Your task to perform on an android device: toggle location history Image 0: 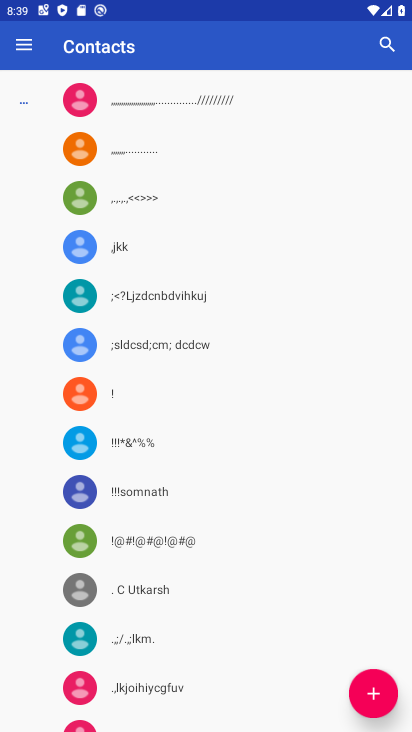
Step 0: press home button
Your task to perform on an android device: toggle location history Image 1: 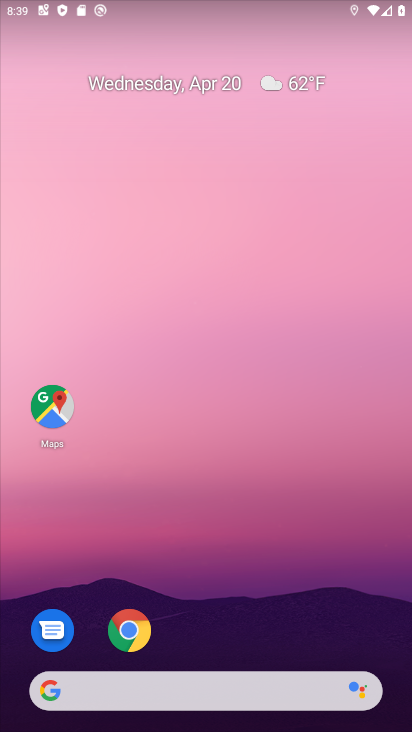
Step 1: drag from (186, 621) to (291, 0)
Your task to perform on an android device: toggle location history Image 2: 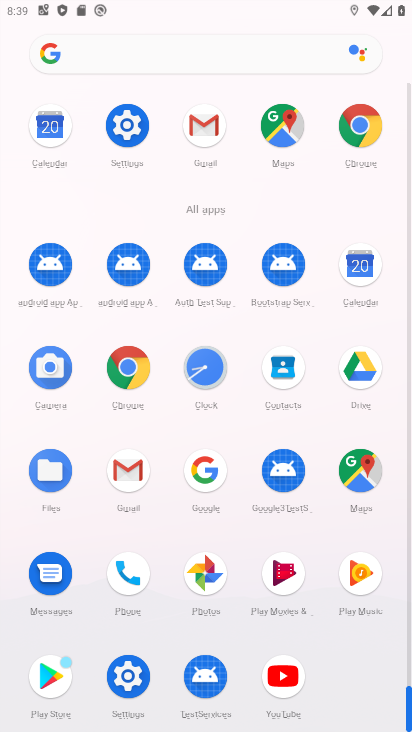
Step 2: click (123, 136)
Your task to perform on an android device: toggle location history Image 3: 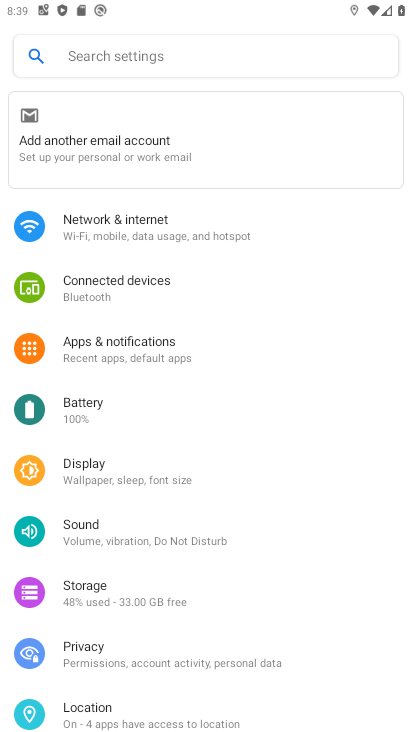
Step 3: click (87, 709)
Your task to perform on an android device: toggle location history Image 4: 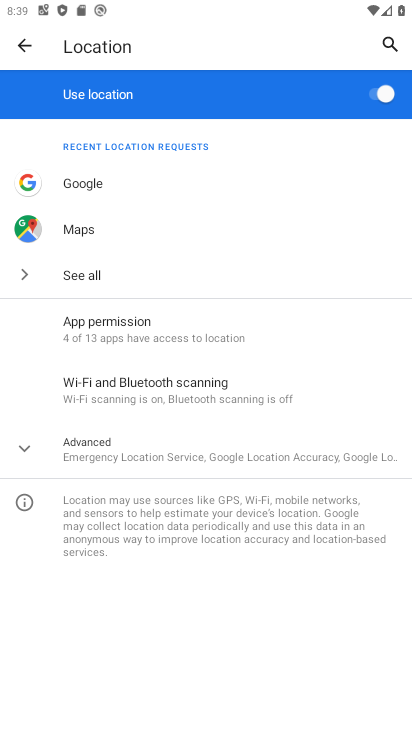
Step 4: click (133, 445)
Your task to perform on an android device: toggle location history Image 5: 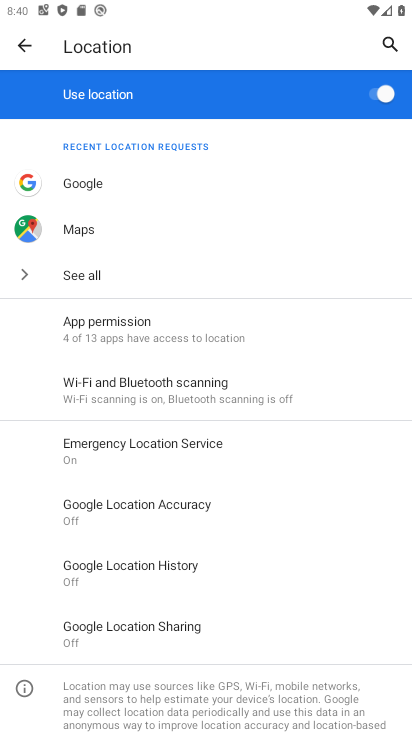
Step 5: click (133, 574)
Your task to perform on an android device: toggle location history Image 6: 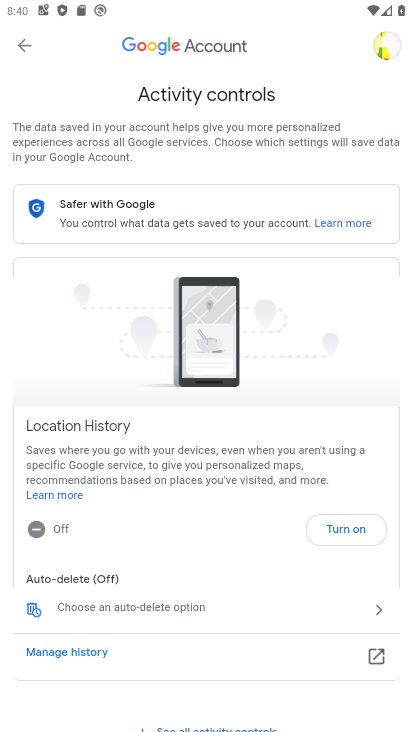
Step 6: click (341, 520)
Your task to perform on an android device: toggle location history Image 7: 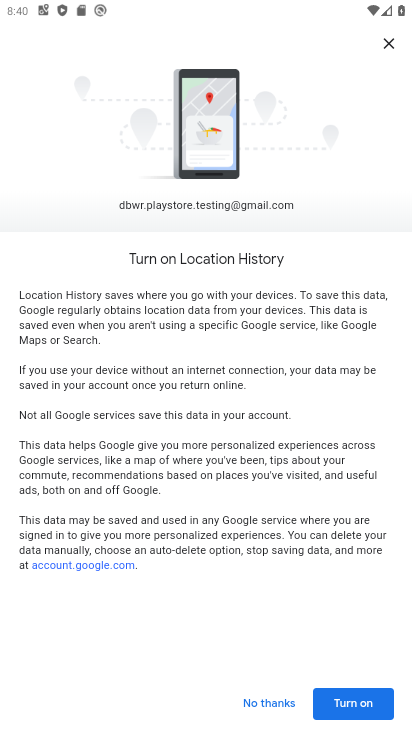
Step 7: click (362, 709)
Your task to perform on an android device: toggle location history Image 8: 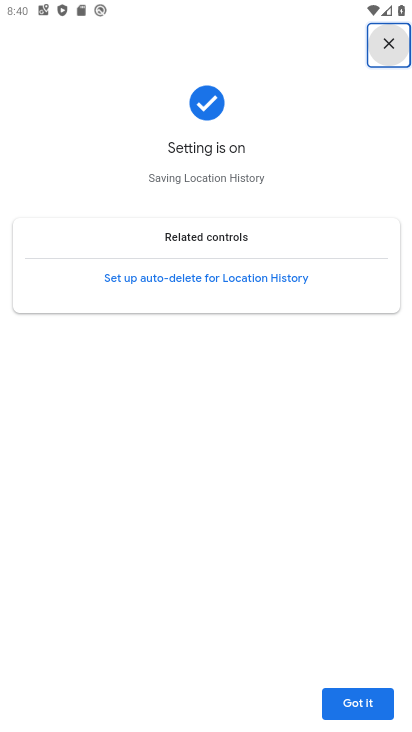
Step 8: click (361, 702)
Your task to perform on an android device: toggle location history Image 9: 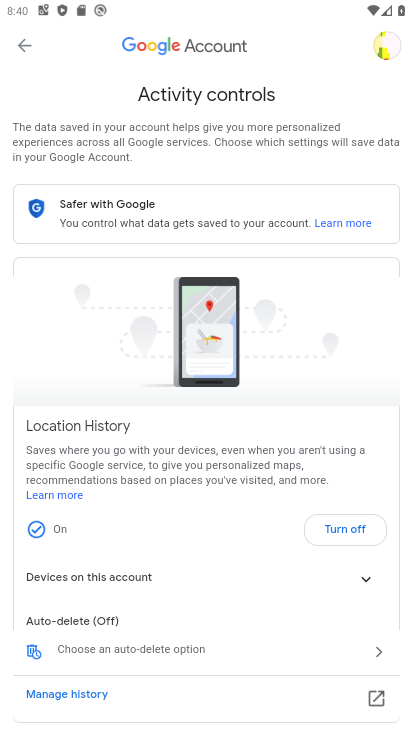
Step 9: task complete